Your task to perform on an android device: open chrome and create a bookmark for the current page Image 0: 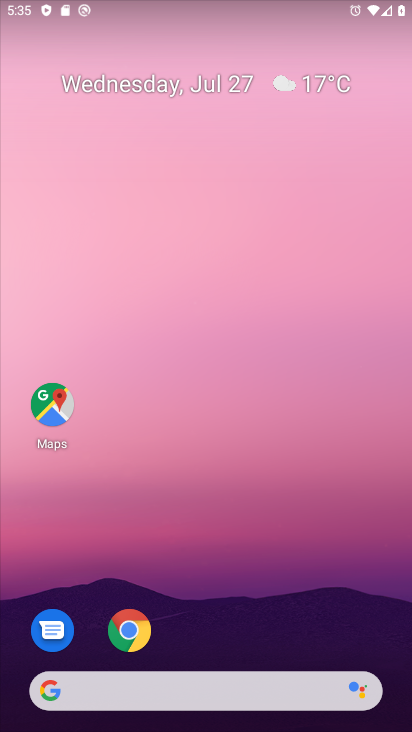
Step 0: drag from (212, 639) to (247, 175)
Your task to perform on an android device: open chrome and create a bookmark for the current page Image 1: 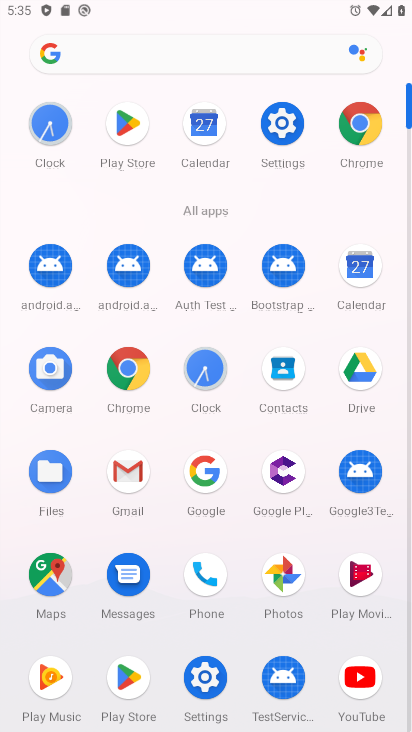
Step 1: click (360, 122)
Your task to perform on an android device: open chrome and create a bookmark for the current page Image 2: 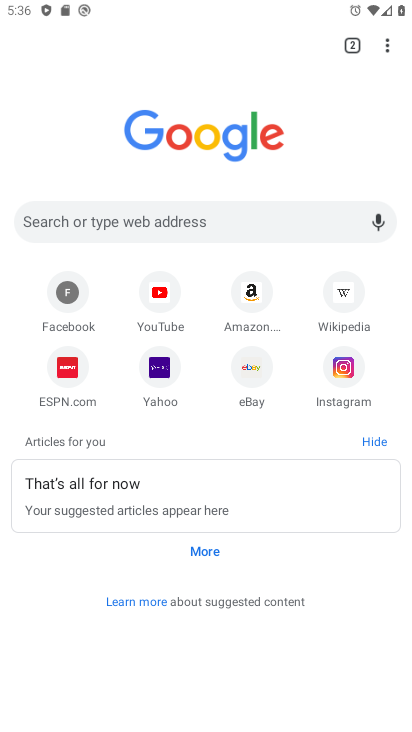
Step 2: click (383, 37)
Your task to perform on an android device: open chrome and create a bookmark for the current page Image 3: 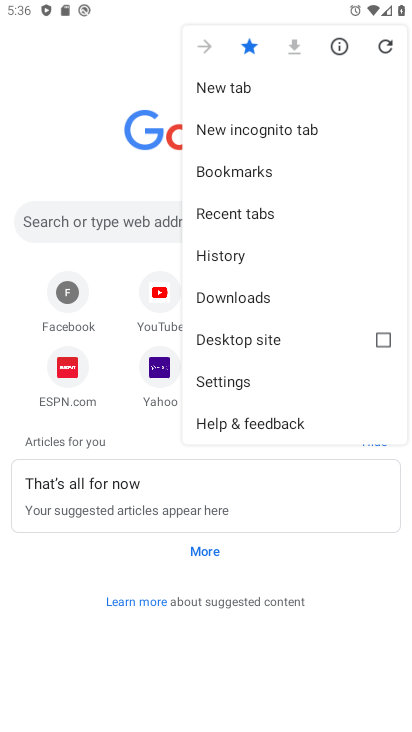
Step 3: task complete